Your task to perform on an android device: Play the last video I watched on Youtube Image 0: 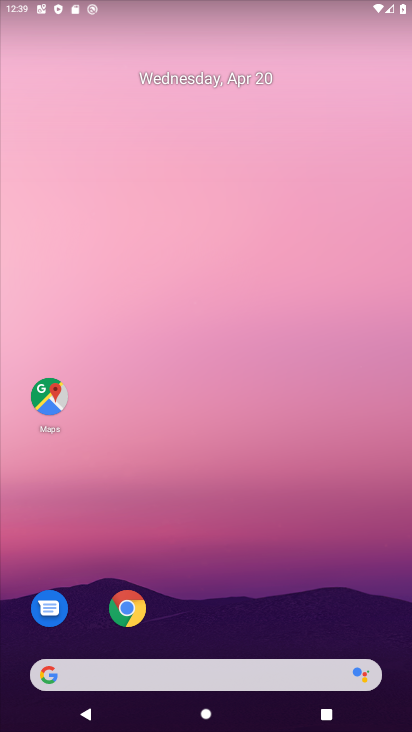
Step 0: drag from (300, 622) to (337, 272)
Your task to perform on an android device: Play the last video I watched on Youtube Image 1: 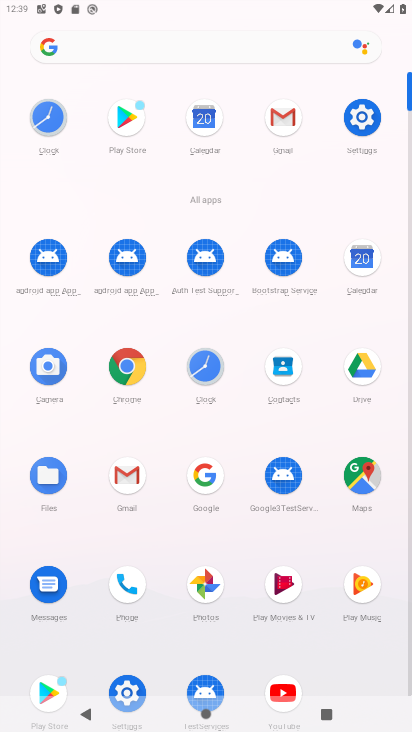
Step 1: click (286, 678)
Your task to perform on an android device: Play the last video I watched on Youtube Image 2: 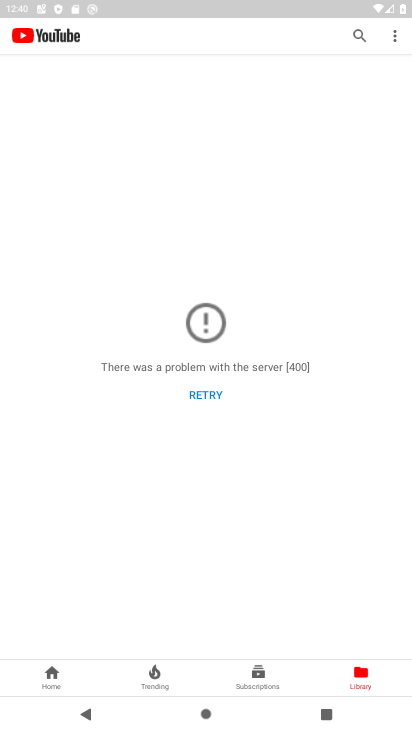
Step 2: click (358, 684)
Your task to perform on an android device: Play the last video I watched on Youtube Image 3: 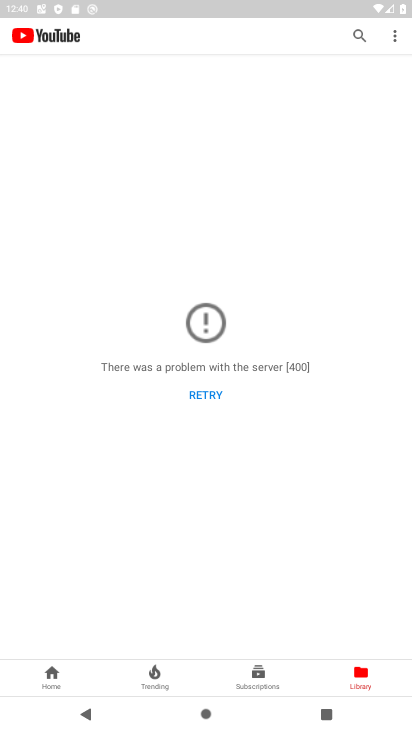
Step 3: task complete